Your task to perform on an android device: Open the calendar and show me this week's events? Image 0: 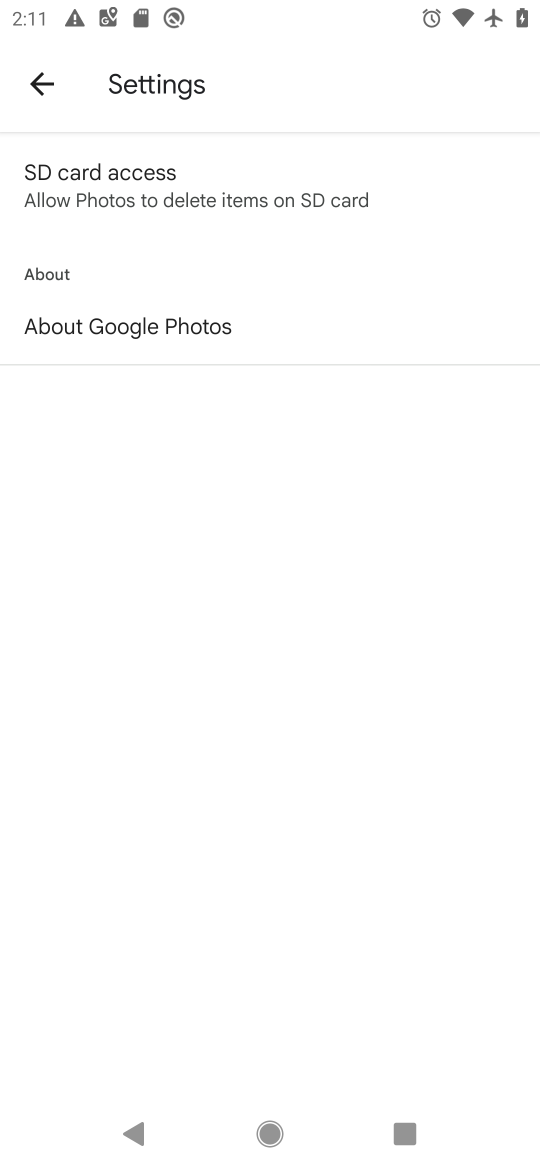
Step 0: task complete